Your task to perform on an android device: change alarm snooze length Image 0: 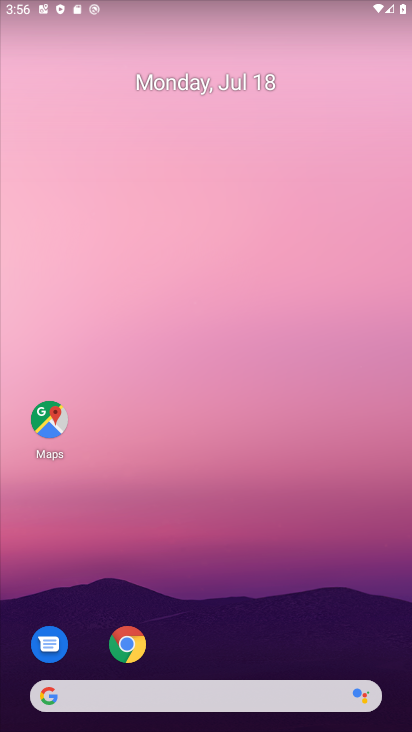
Step 0: drag from (351, 642) to (322, 153)
Your task to perform on an android device: change alarm snooze length Image 1: 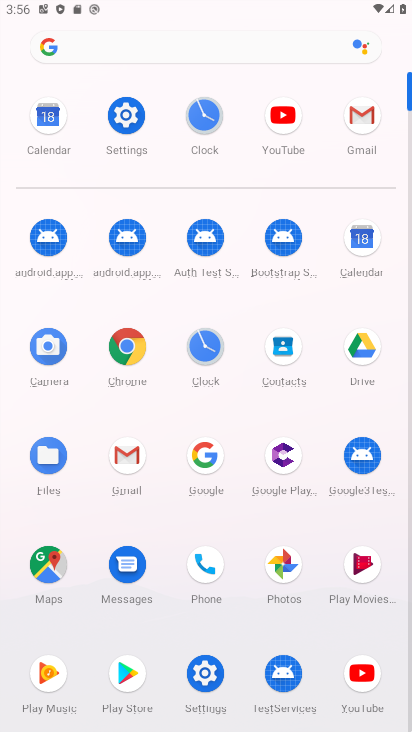
Step 1: click (203, 345)
Your task to perform on an android device: change alarm snooze length Image 2: 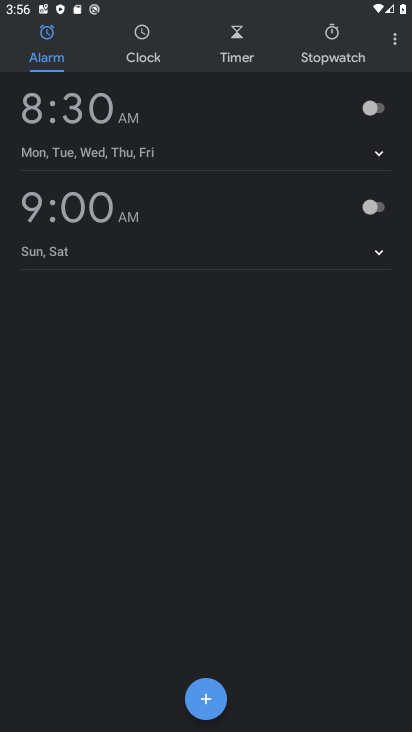
Step 2: click (393, 46)
Your task to perform on an android device: change alarm snooze length Image 3: 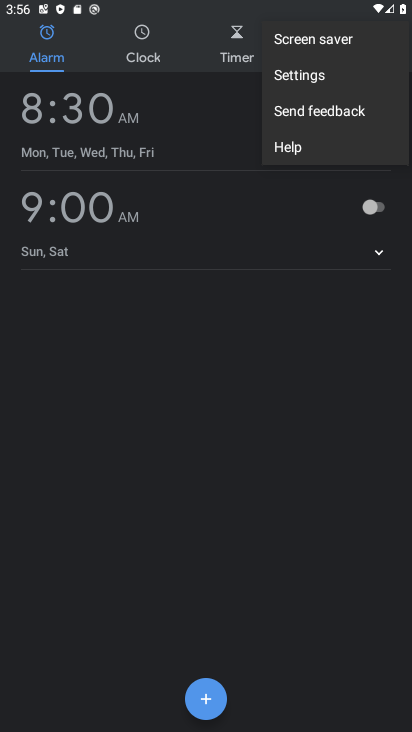
Step 3: click (307, 74)
Your task to perform on an android device: change alarm snooze length Image 4: 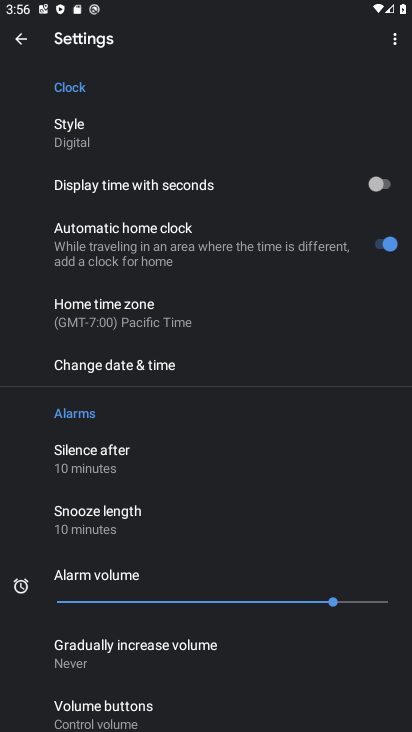
Step 4: click (109, 510)
Your task to perform on an android device: change alarm snooze length Image 5: 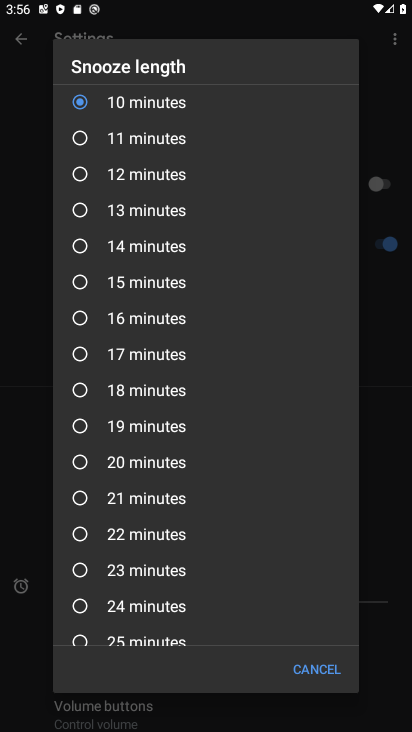
Step 5: click (79, 284)
Your task to perform on an android device: change alarm snooze length Image 6: 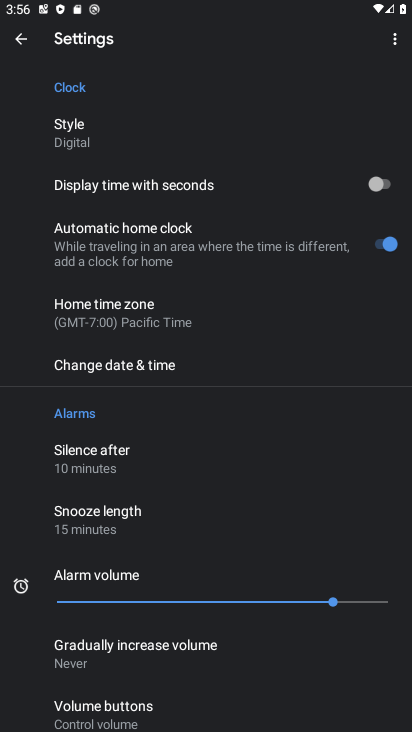
Step 6: task complete